Your task to perform on an android device: change alarm snooze length Image 0: 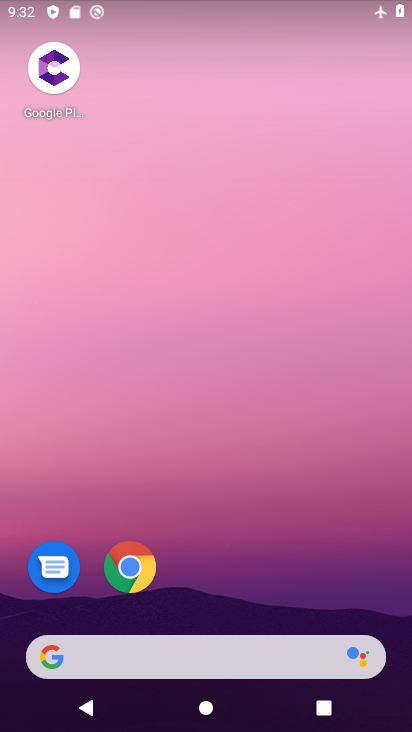
Step 0: drag from (222, 579) to (222, 173)
Your task to perform on an android device: change alarm snooze length Image 1: 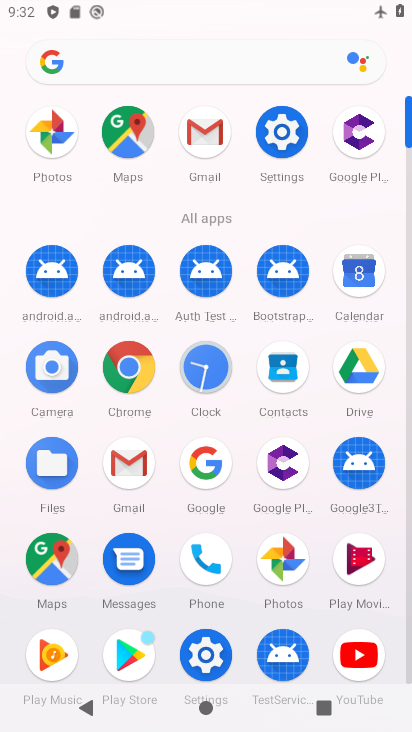
Step 1: click (215, 358)
Your task to perform on an android device: change alarm snooze length Image 2: 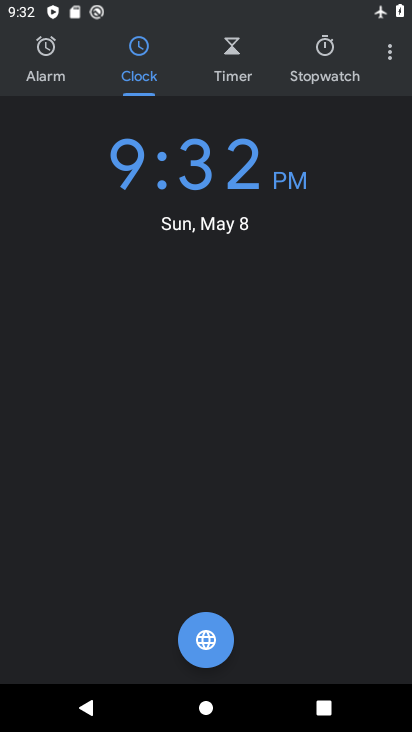
Step 2: click (386, 46)
Your task to perform on an android device: change alarm snooze length Image 3: 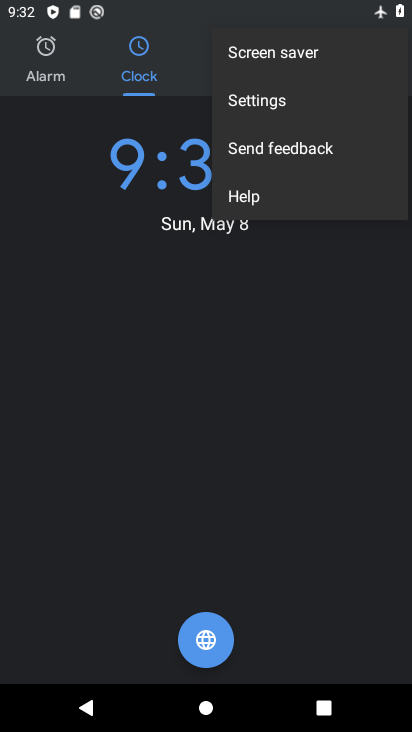
Step 3: click (259, 87)
Your task to perform on an android device: change alarm snooze length Image 4: 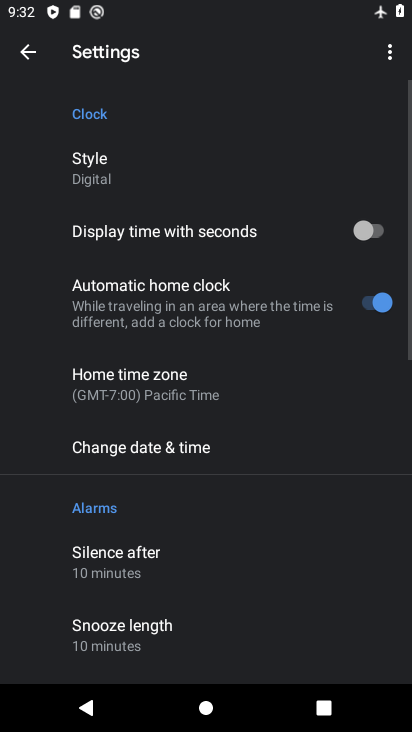
Step 4: drag from (164, 604) to (140, 181)
Your task to perform on an android device: change alarm snooze length Image 5: 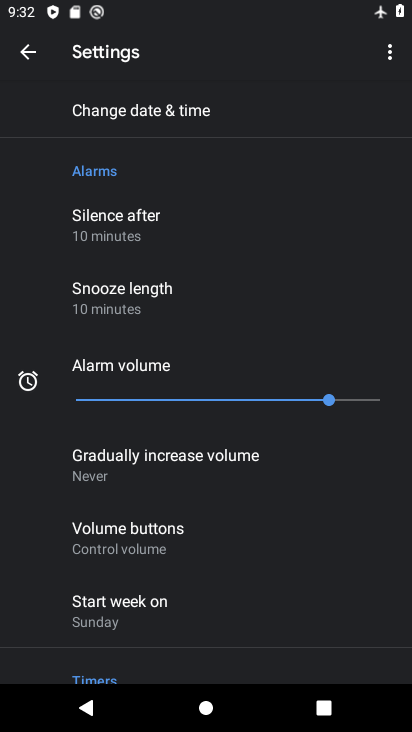
Step 5: click (117, 225)
Your task to perform on an android device: change alarm snooze length Image 6: 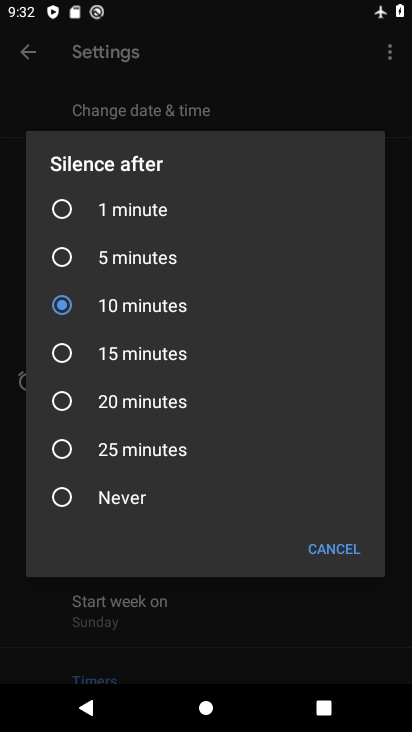
Step 6: click (67, 257)
Your task to perform on an android device: change alarm snooze length Image 7: 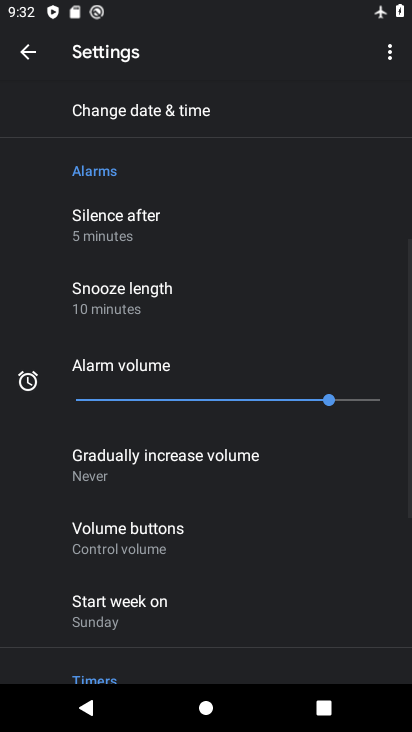
Step 7: task complete